Your task to perform on an android device: When is my next meeting? Image 0: 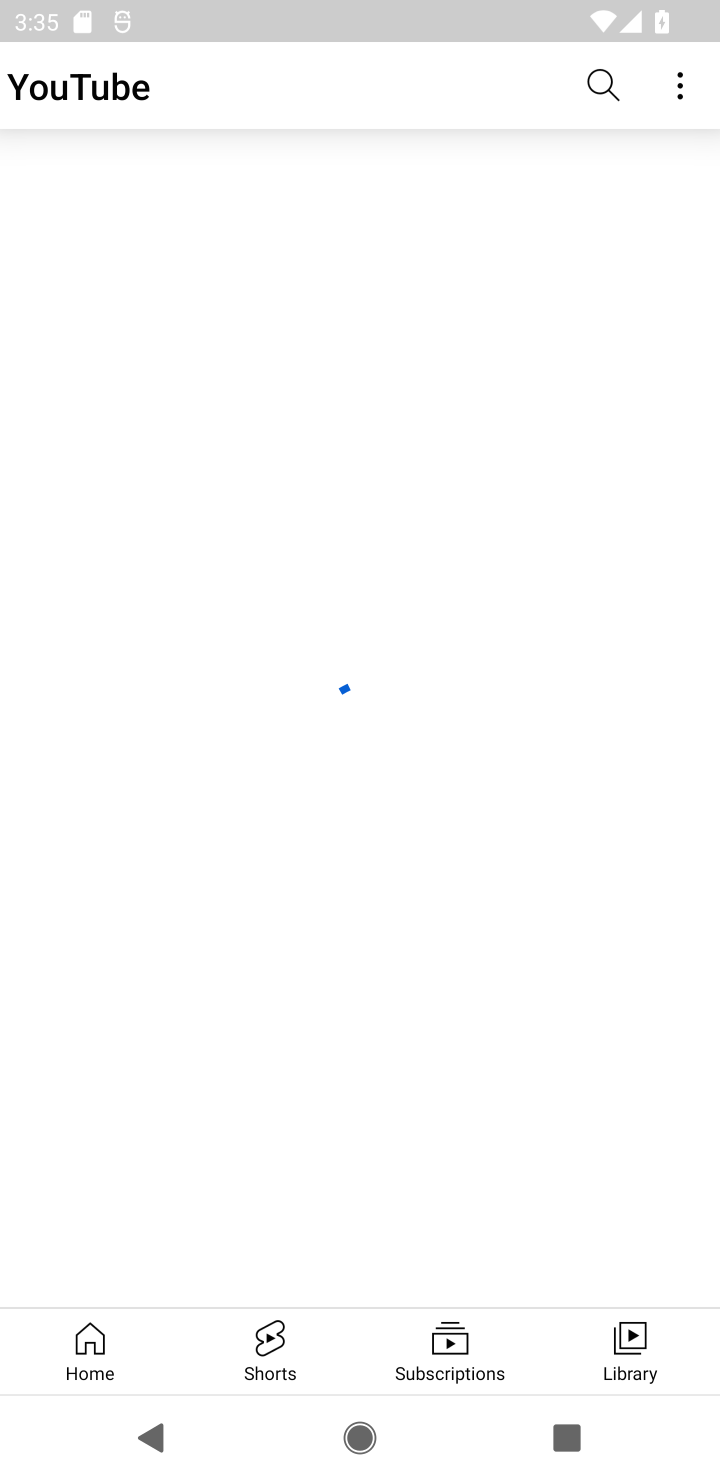
Step 0: press home button
Your task to perform on an android device: When is my next meeting? Image 1: 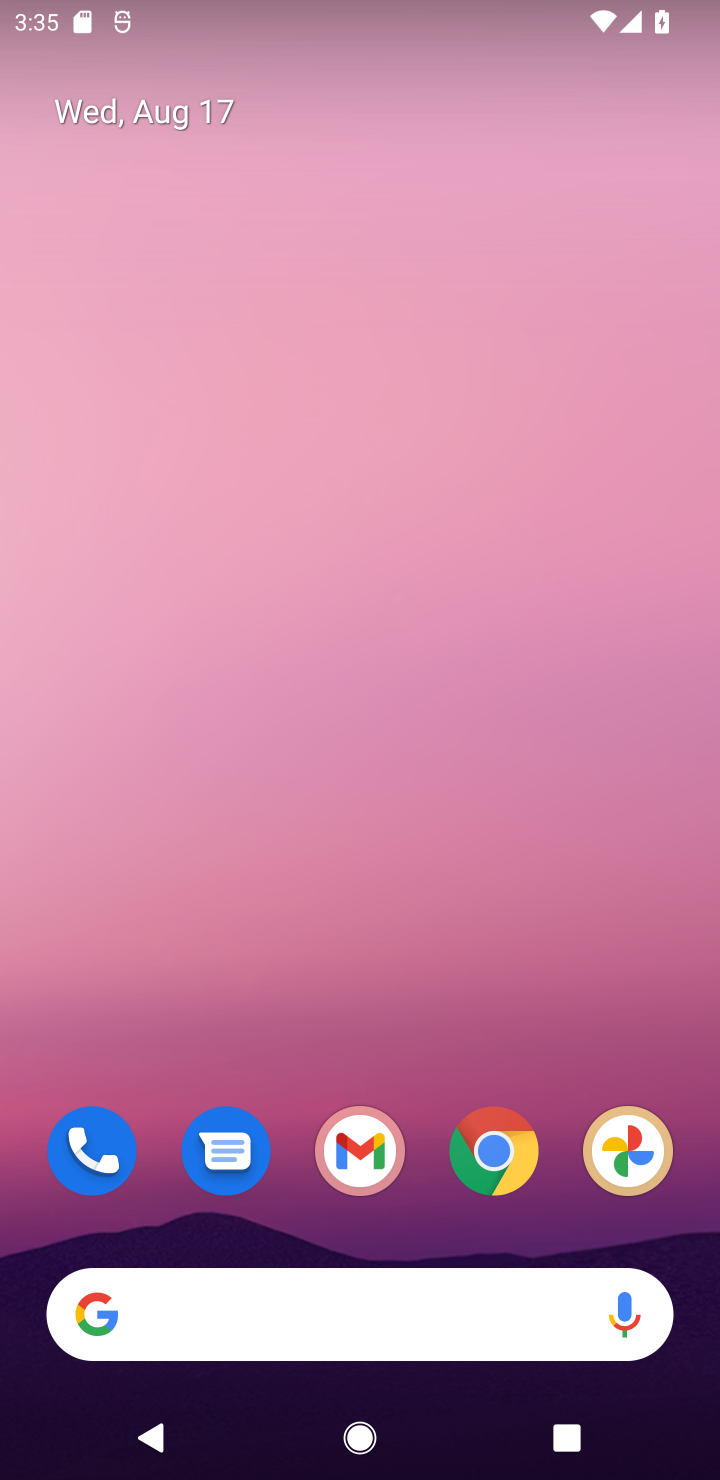
Step 1: drag from (408, 1237) to (446, 297)
Your task to perform on an android device: When is my next meeting? Image 2: 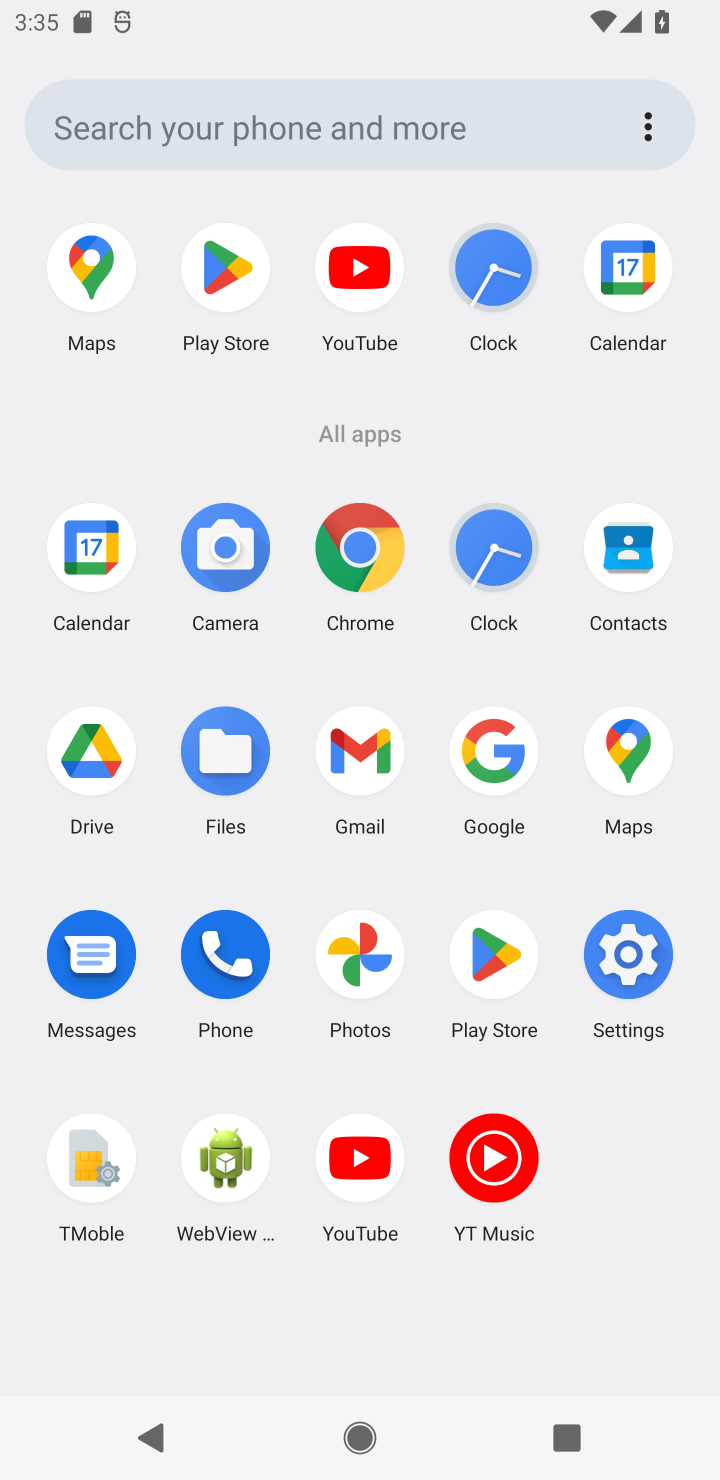
Step 2: click (613, 297)
Your task to perform on an android device: When is my next meeting? Image 3: 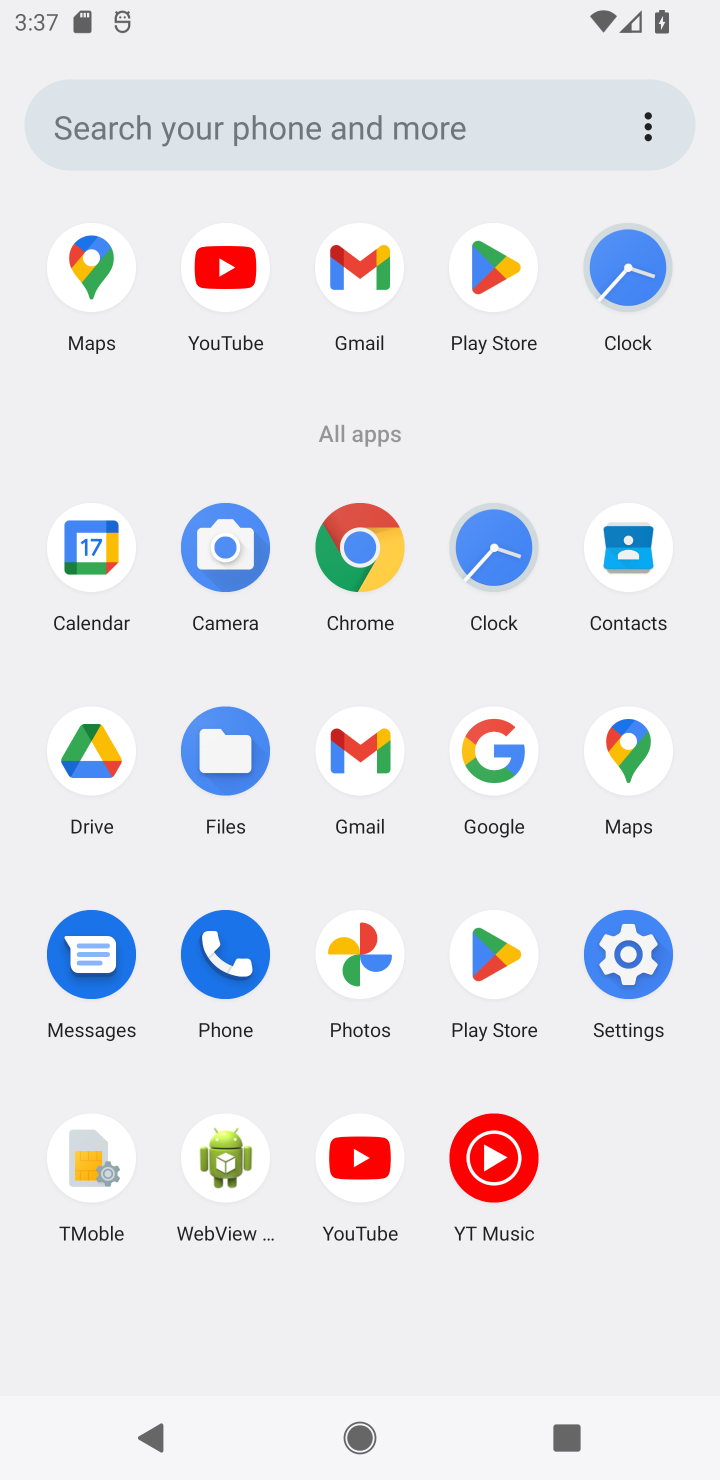
Step 3: click (96, 553)
Your task to perform on an android device: When is my next meeting? Image 4: 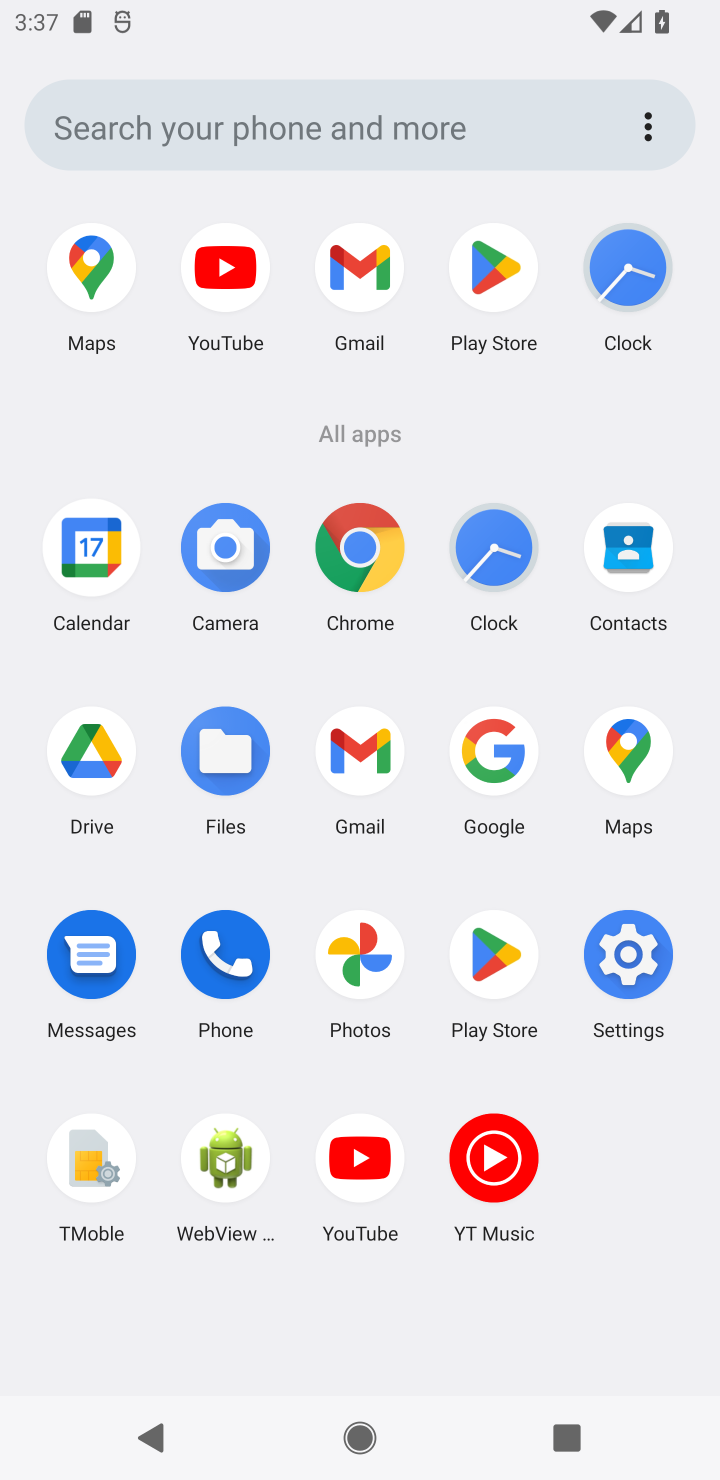
Step 4: task complete